Your task to perform on an android device: Empty the shopping cart on newegg. Image 0: 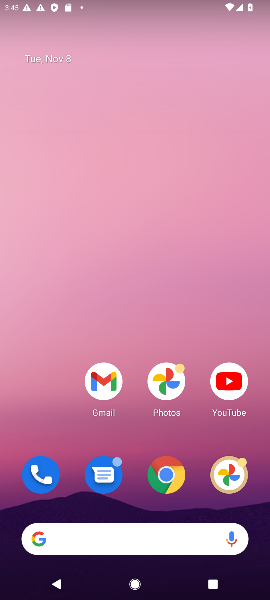
Step 0: drag from (95, 555) to (111, 152)
Your task to perform on an android device: Empty the shopping cart on newegg. Image 1: 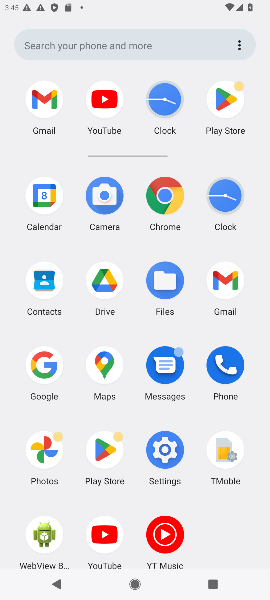
Step 1: click (35, 363)
Your task to perform on an android device: Empty the shopping cart on newegg. Image 2: 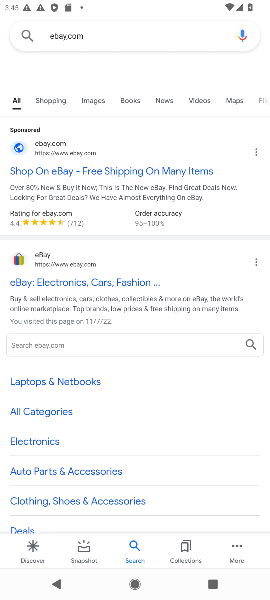
Step 2: click (111, 35)
Your task to perform on an android device: Empty the shopping cart on newegg. Image 3: 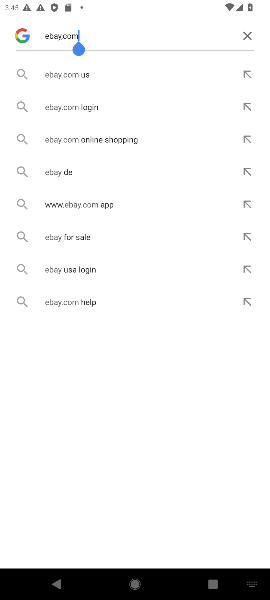
Step 3: click (251, 34)
Your task to perform on an android device: Empty the shopping cart on newegg. Image 4: 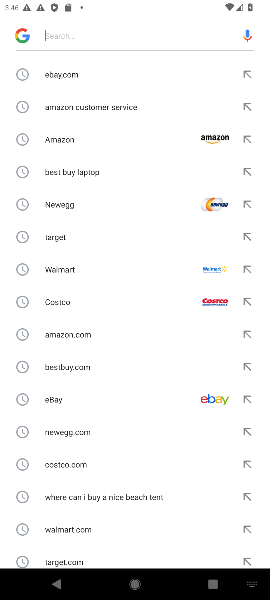
Step 4: click (124, 32)
Your task to perform on an android device: Empty the shopping cart on newegg. Image 5: 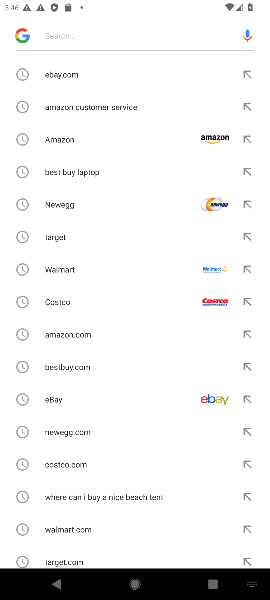
Step 5: type "newegg "
Your task to perform on an android device: Empty the shopping cart on newegg. Image 6: 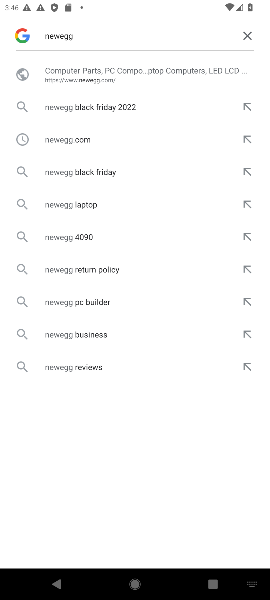
Step 6: click (75, 137)
Your task to perform on an android device: Empty the shopping cart on newegg. Image 7: 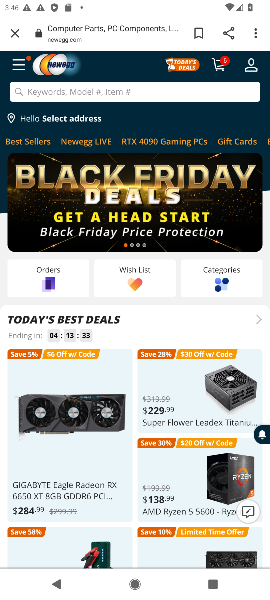
Step 7: click (76, 89)
Your task to perform on an android device: Empty the shopping cart on newegg. Image 8: 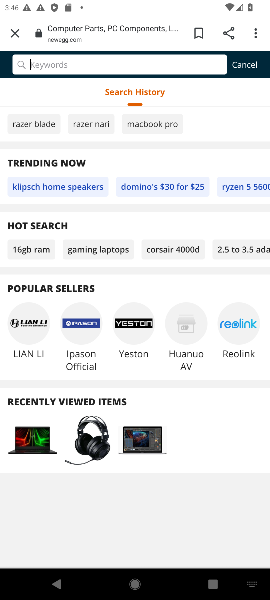
Step 8: click (242, 60)
Your task to perform on an android device: Empty the shopping cart on newegg. Image 9: 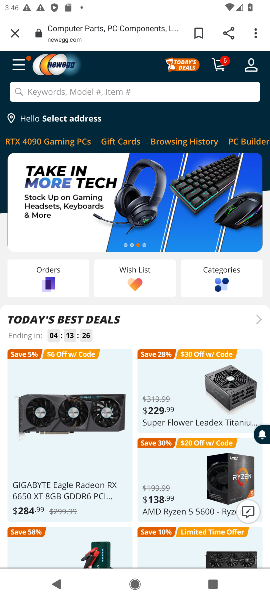
Step 9: click (218, 65)
Your task to perform on an android device: Empty the shopping cart on newegg. Image 10: 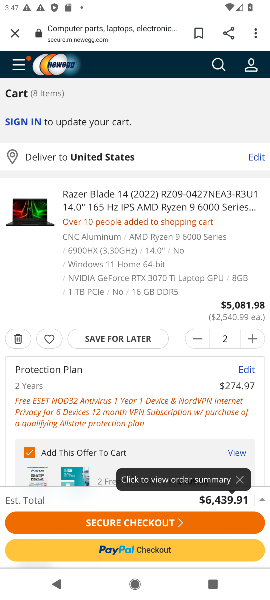
Step 10: task complete